Your task to perform on an android device: delete the emails in spam in the gmail app Image 0: 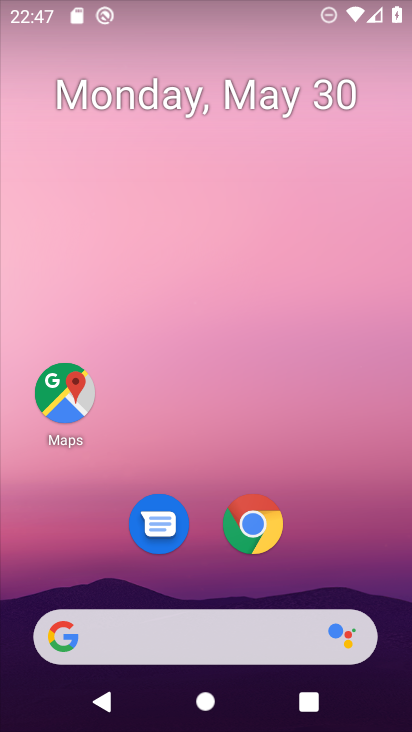
Step 0: drag from (303, 524) to (262, 42)
Your task to perform on an android device: delete the emails in spam in the gmail app Image 1: 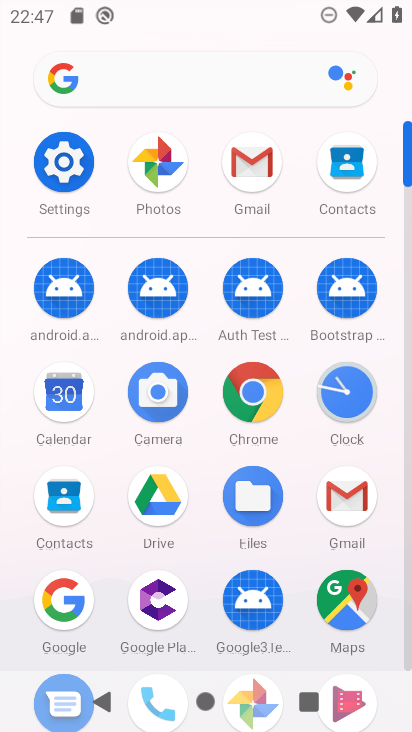
Step 1: click (247, 162)
Your task to perform on an android device: delete the emails in spam in the gmail app Image 2: 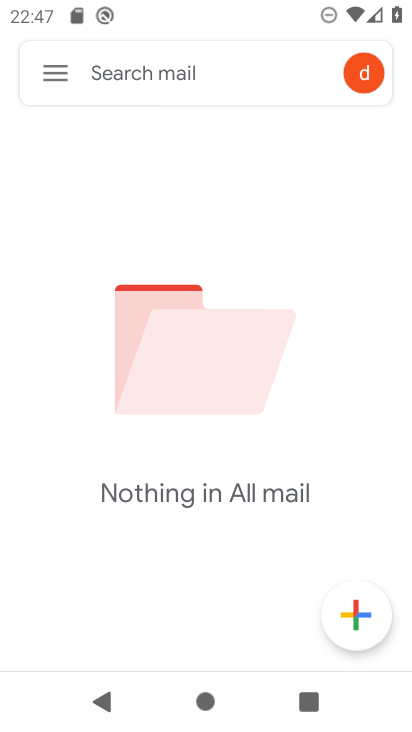
Step 2: click (49, 51)
Your task to perform on an android device: delete the emails in spam in the gmail app Image 3: 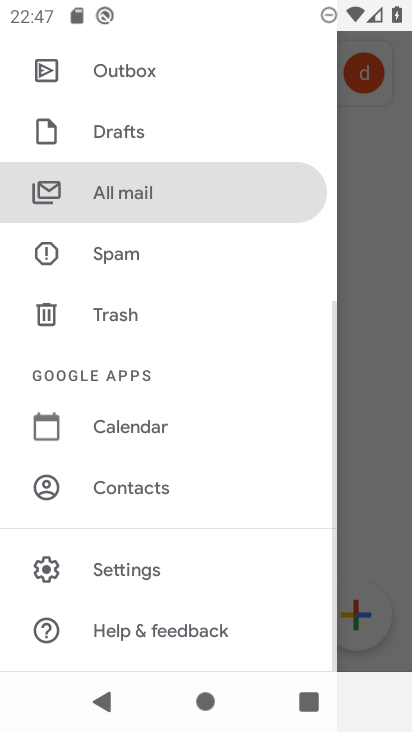
Step 3: click (132, 259)
Your task to perform on an android device: delete the emails in spam in the gmail app Image 4: 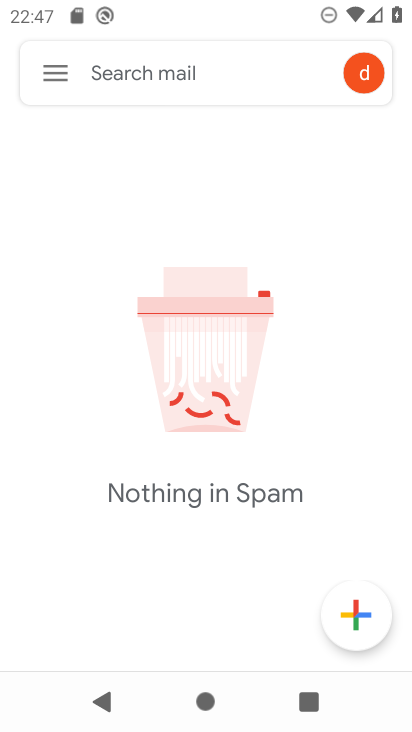
Step 4: task complete